Your task to perform on an android device: allow notifications from all sites in the chrome app Image 0: 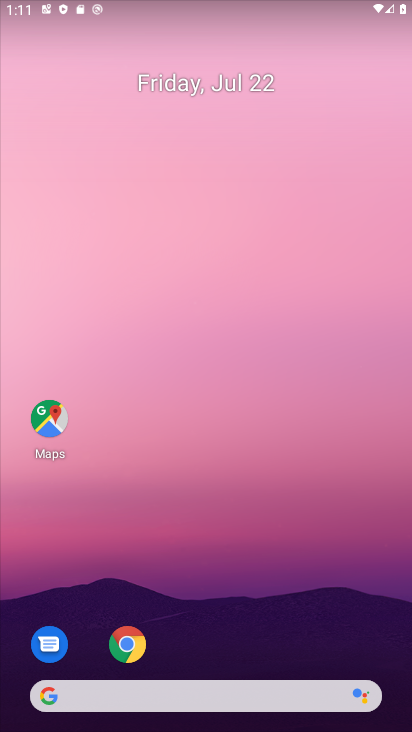
Step 0: click (124, 638)
Your task to perform on an android device: allow notifications from all sites in the chrome app Image 1: 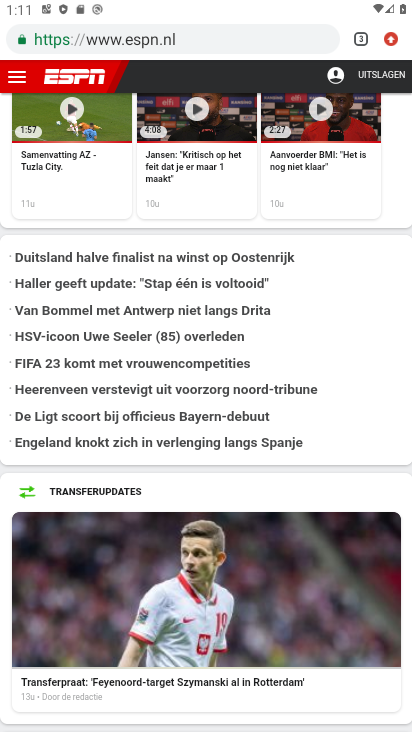
Step 1: click (388, 38)
Your task to perform on an android device: allow notifications from all sites in the chrome app Image 2: 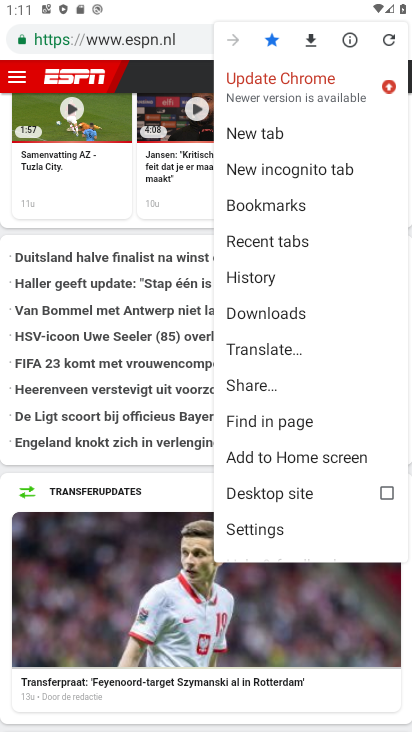
Step 2: click (271, 533)
Your task to perform on an android device: allow notifications from all sites in the chrome app Image 3: 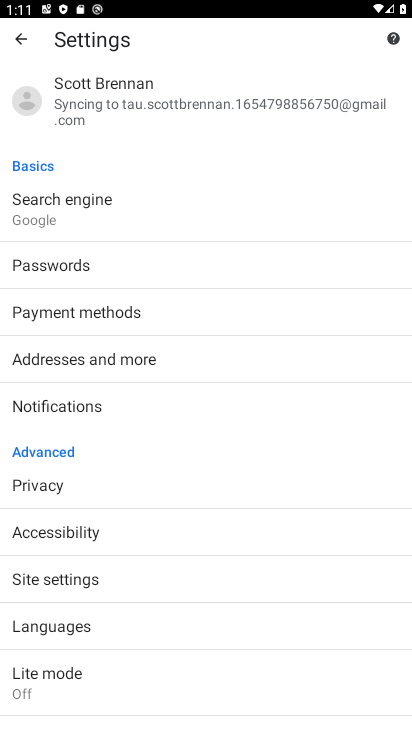
Step 3: click (119, 405)
Your task to perform on an android device: allow notifications from all sites in the chrome app Image 4: 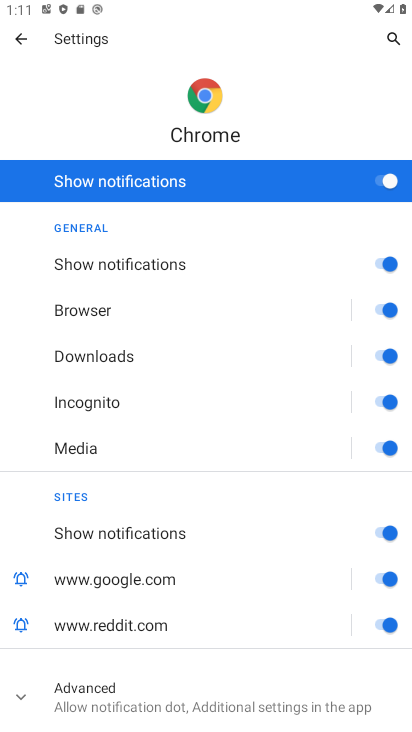
Step 4: task complete